Your task to perform on an android device: empty trash in google photos Image 0: 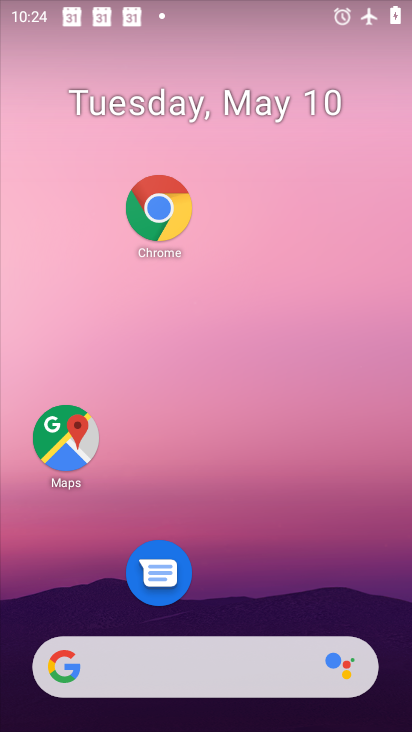
Step 0: drag from (303, 682) to (293, 313)
Your task to perform on an android device: empty trash in google photos Image 1: 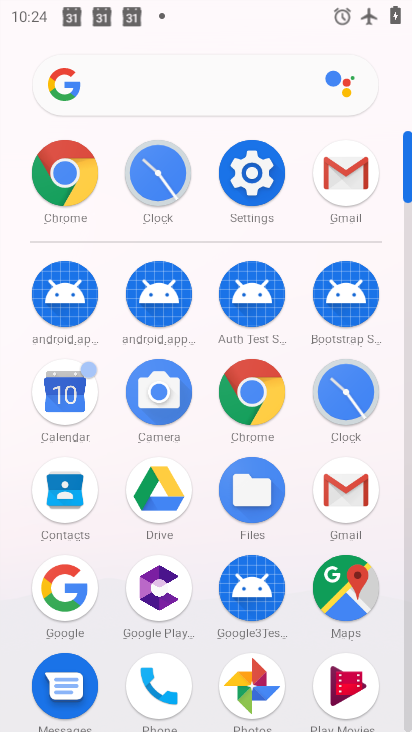
Step 1: click (239, 689)
Your task to perform on an android device: empty trash in google photos Image 2: 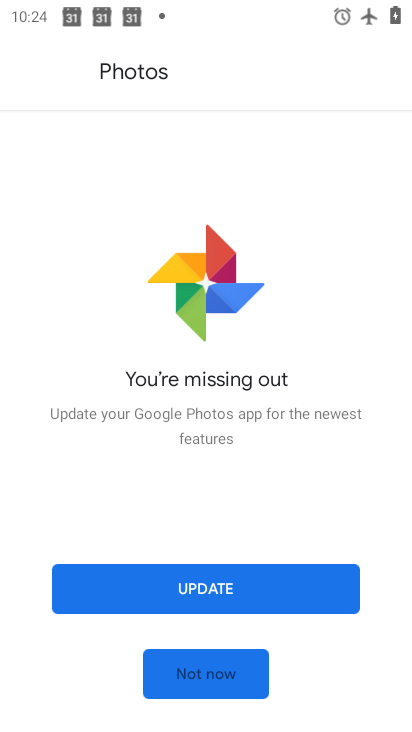
Step 2: click (221, 681)
Your task to perform on an android device: empty trash in google photos Image 3: 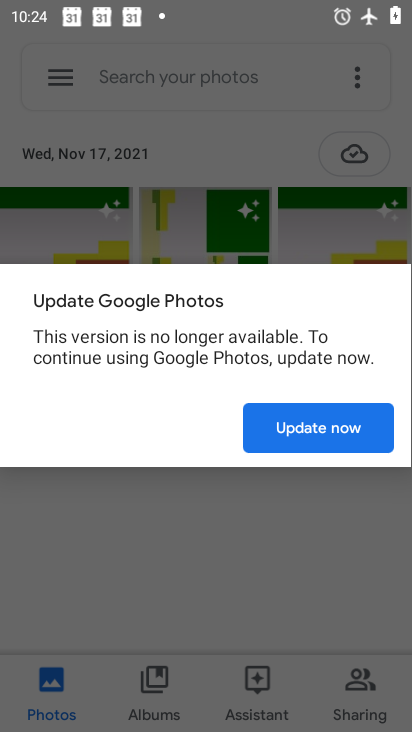
Step 3: click (306, 428)
Your task to perform on an android device: empty trash in google photos Image 4: 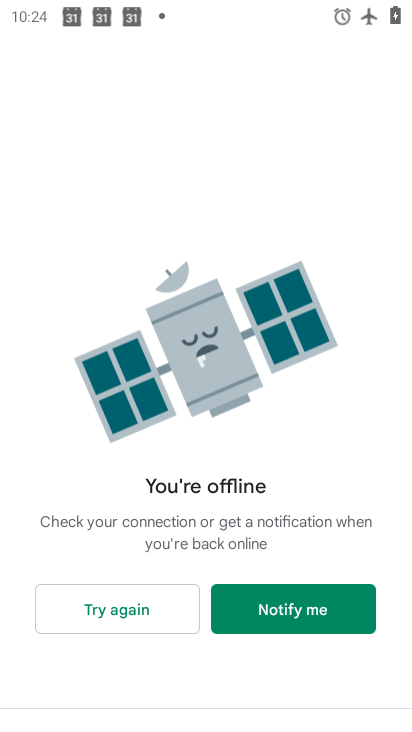
Step 4: press back button
Your task to perform on an android device: empty trash in google photos Image 5: 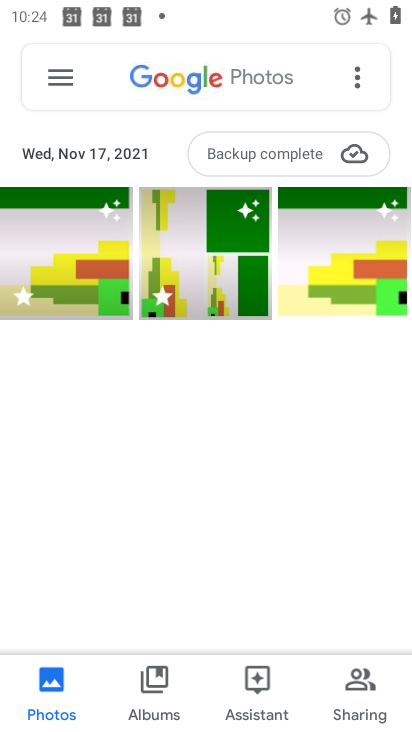
Step 5: click (63, 79)
Your task to perform on an android device: empty trash in google photos Image 6: 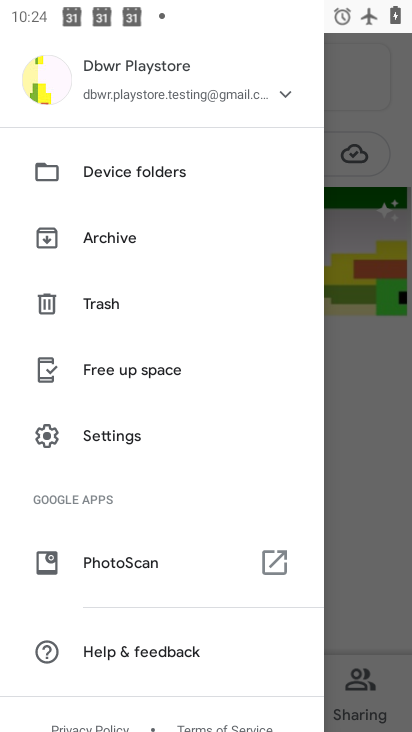
Step 6: click (107, 297)
Your task to perform on an android device: empty trash in google photos Image 7: 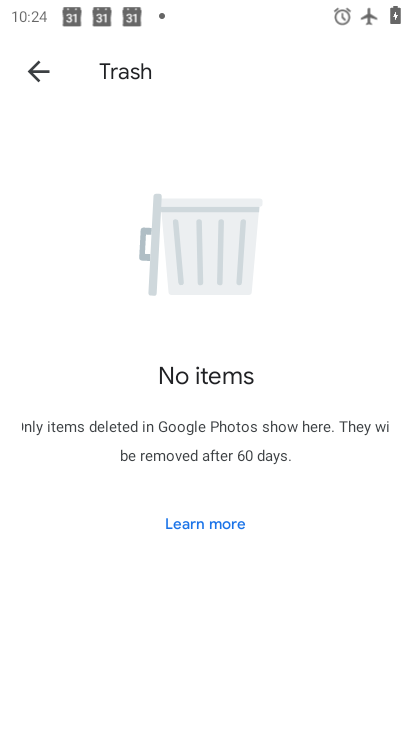
Step 7: task complete